Your task to perform on an android device: Check out the best rated books on Goodreads. Image 0: 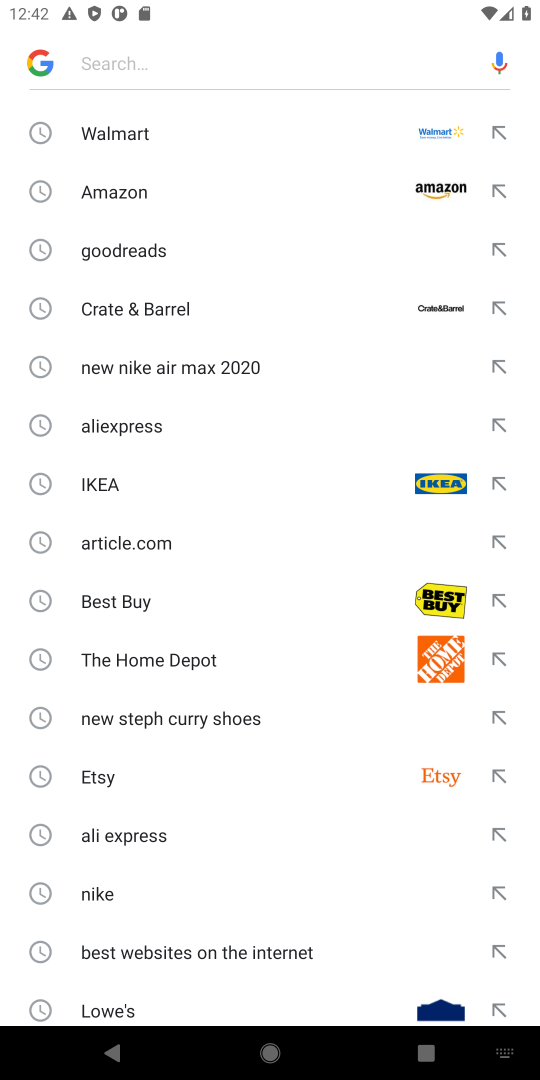
Step 0: press home button
Your task to perform on an android device: Check out the best rated books on Goodreads. Image 1: 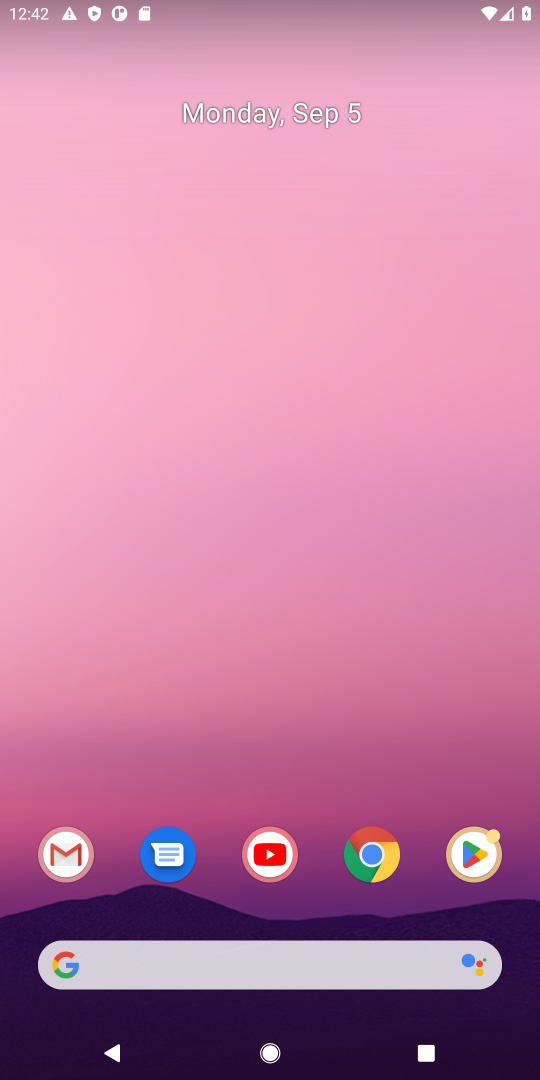
Step 1: click (319, 977)
Your task to perform on an android device: Check out the best rated books on Goodreads. Image 2: 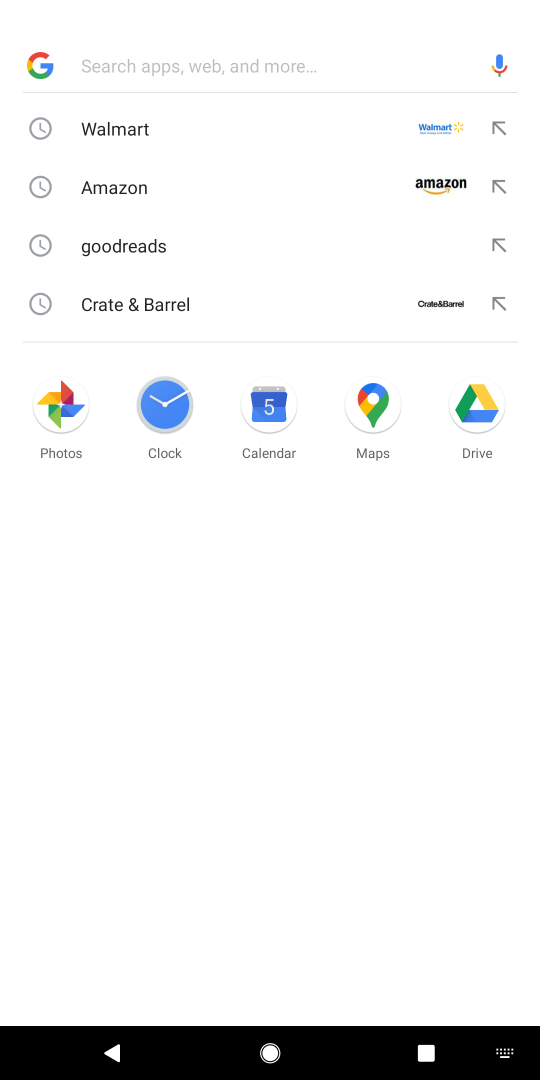
Step 2: press enter
Your task to perform on an android device: Check out the best rated books on Goodreads. Image 3: 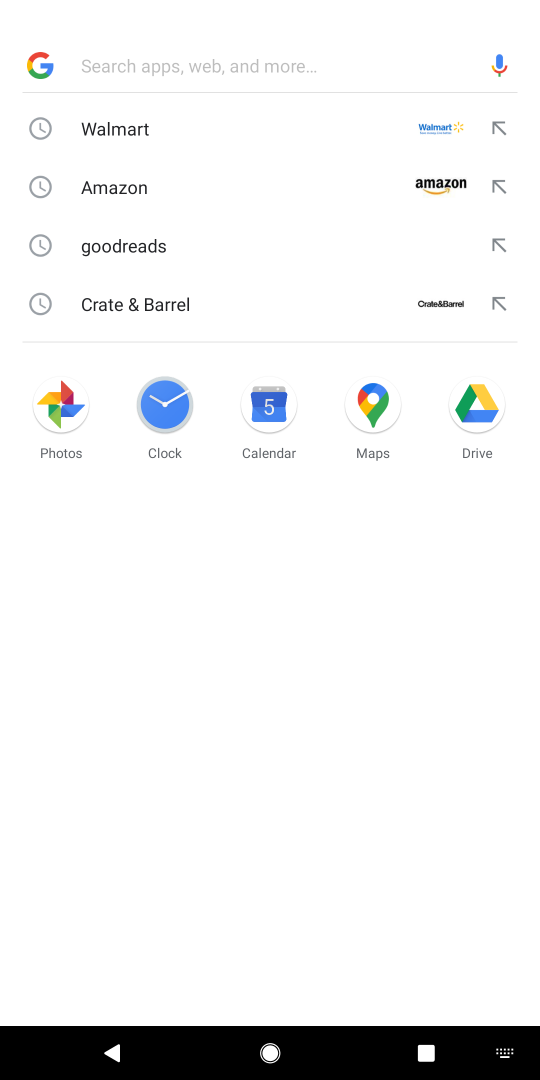
Step 3: type "googreads"
Your task to perform on an android device: Check out the best rated books on Goodreads. Image 4: 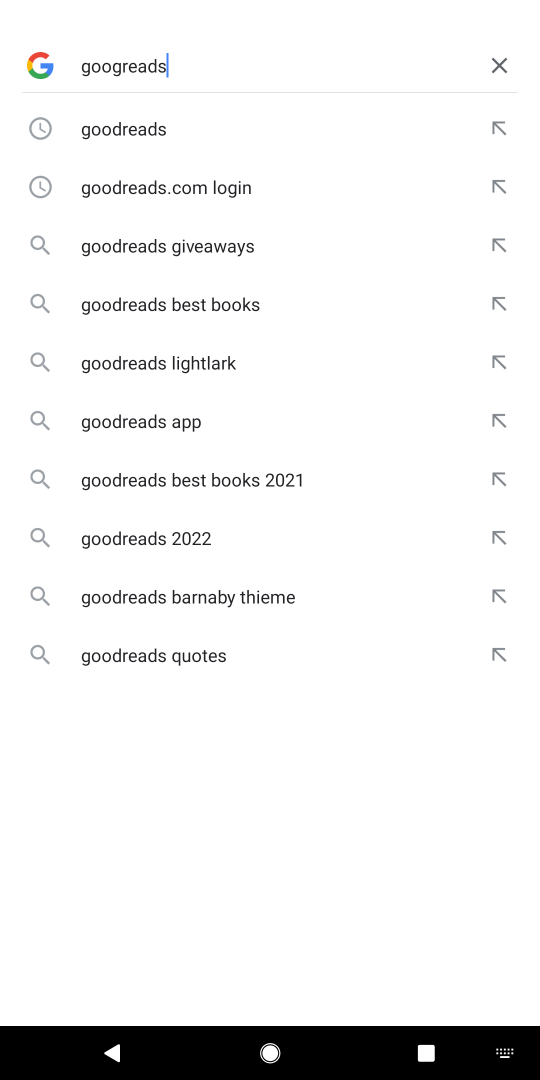
Step 4: click (146, 120)
Your task to perform on an android device: Check out the best rated books on Goodreads. Image 5: 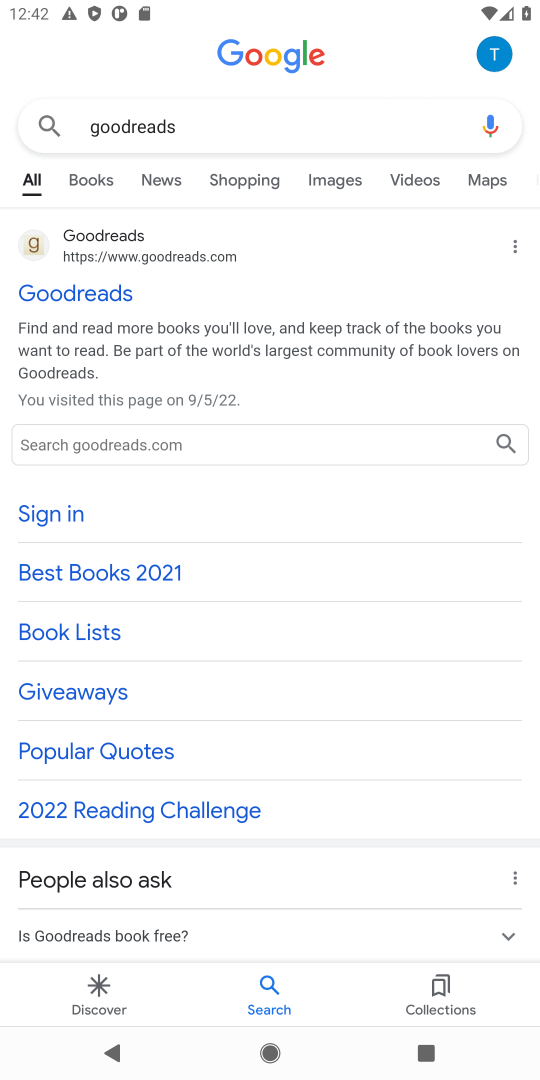
Step 5: click (78, 294)
Your task to perform on an android device: Check out the best rated books on Goodreads. Image 6: 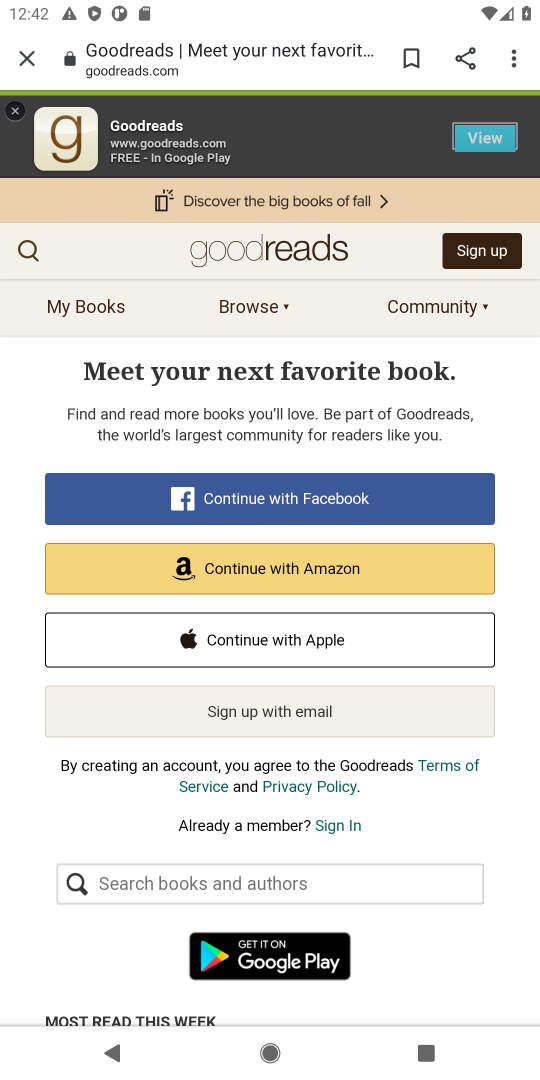
Step 6: click (80, 257)
Your task to perform on an android device: Check out the best rated books on Goodreads. Image 7: 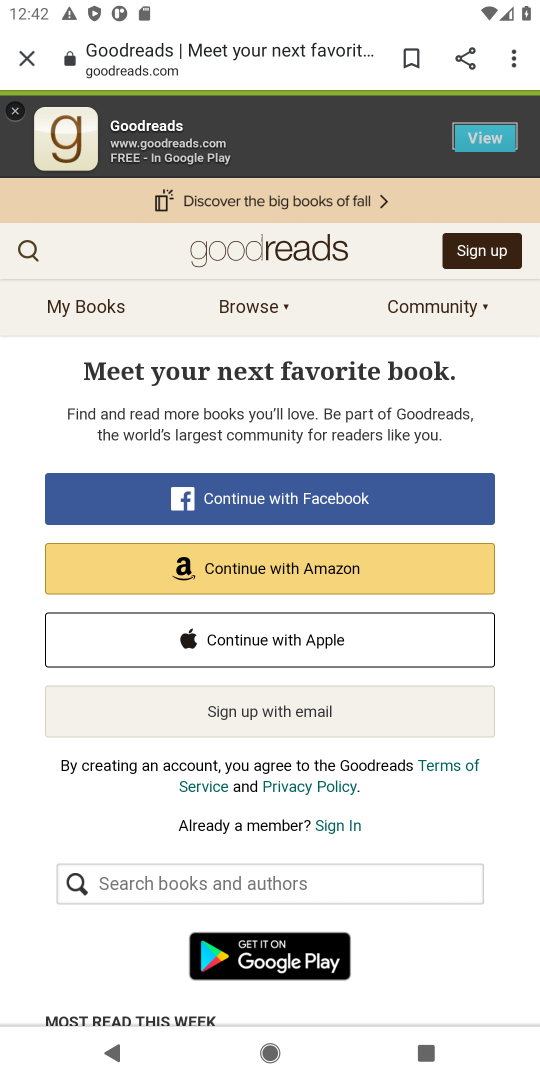
Step 7: click (64, 245)
Your task to perform on an android device: Check out the best rated books on Goodreads. Image 8: 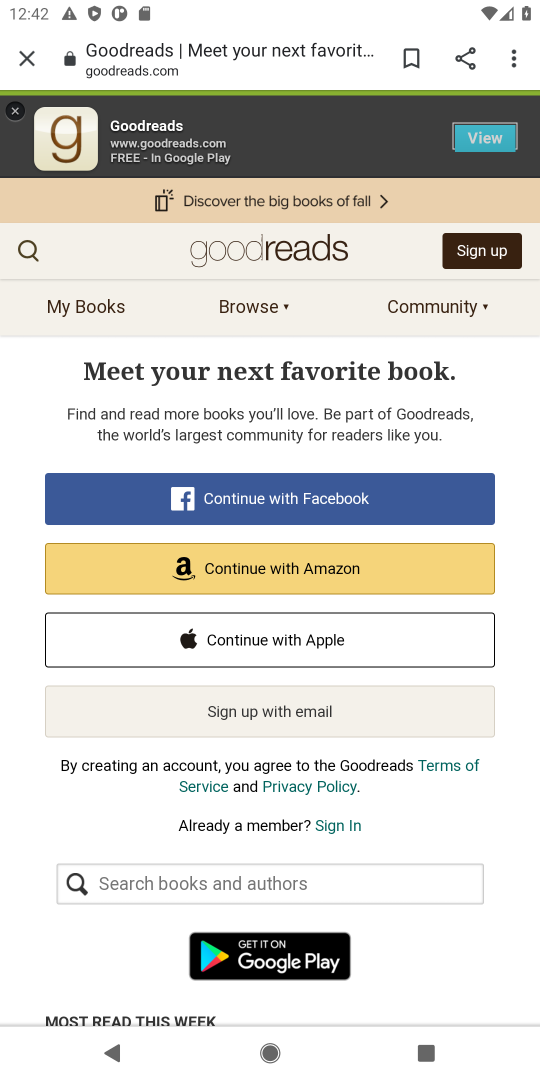
Step 8: click (76, 254)
Your task to perform on an android device: Check out the best rated books on Goodreads. Image 9: 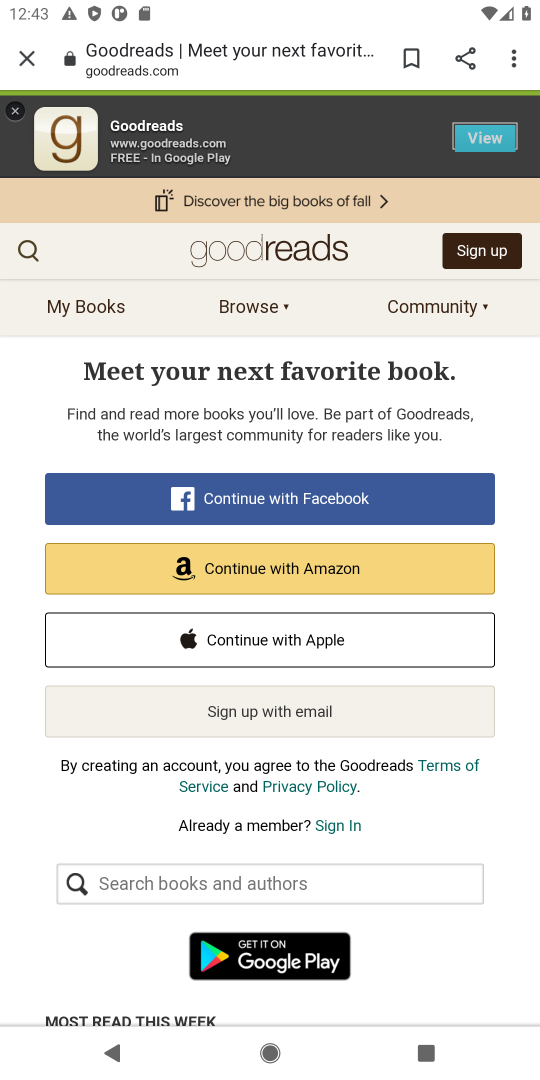
Step 9: click (67, 248)
Your task to perform on an android device: Check out the best rated books on Goodreads. Image 10: 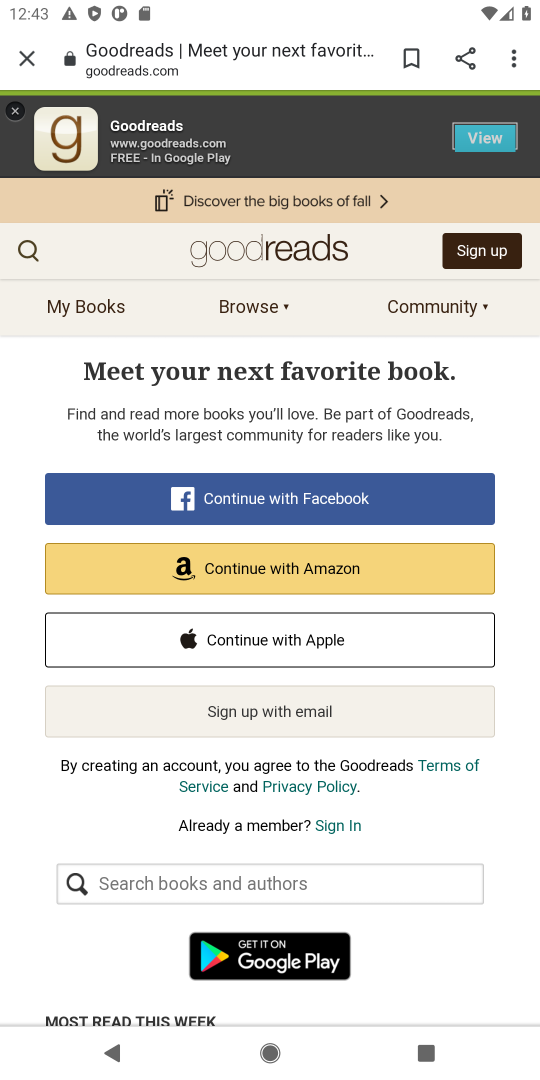
Step 10: click (38, 255)
Your task to perform on an android device: Check out the best rated books on Goodreads. Image 11: 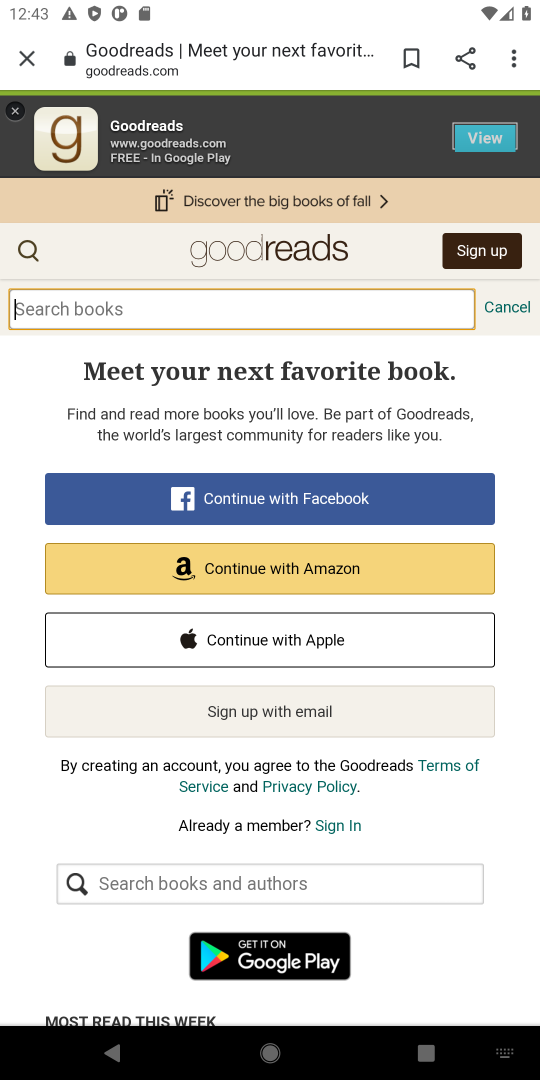
Step 11: press enter
Your task to perform on an android device: Check out the best rated books on Goodreads. Image 12: 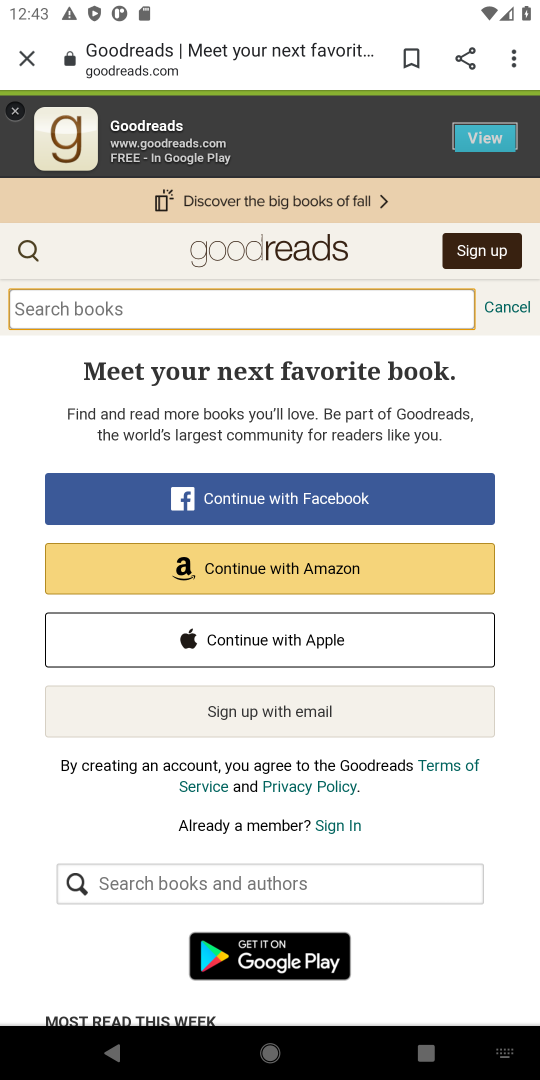
Step 12: type "best rated books"
Your task to perform on an android device: Check out the best rated books on Goodreads. Image 13: 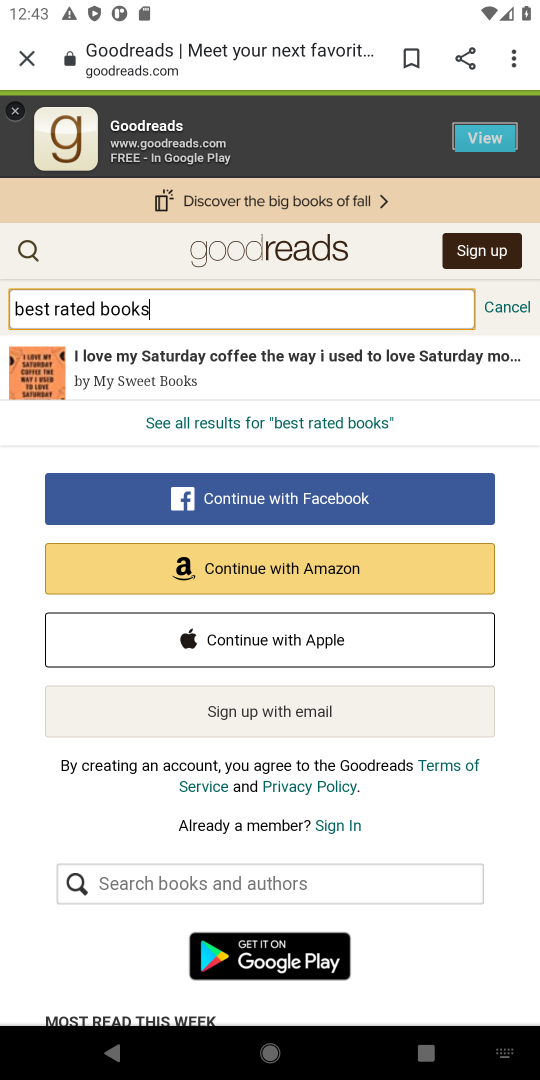
Step 13: task complete